Your task to perform on an android device: What's on my calendar tomorrow? Image 0: 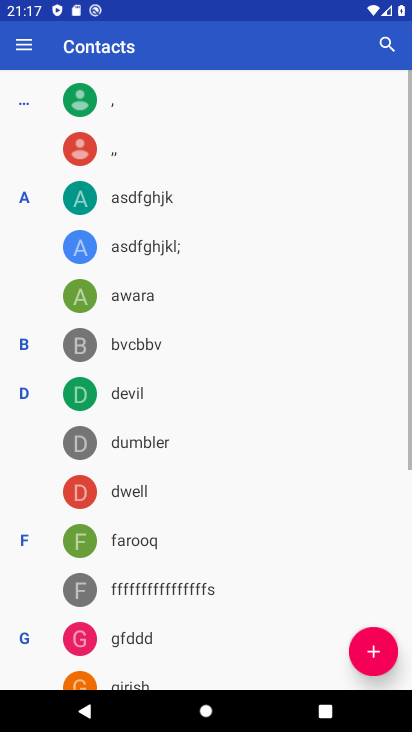
Step 0: press home button
Your task to perform on an android device: What's on my calendar tomorrow? Image 1: 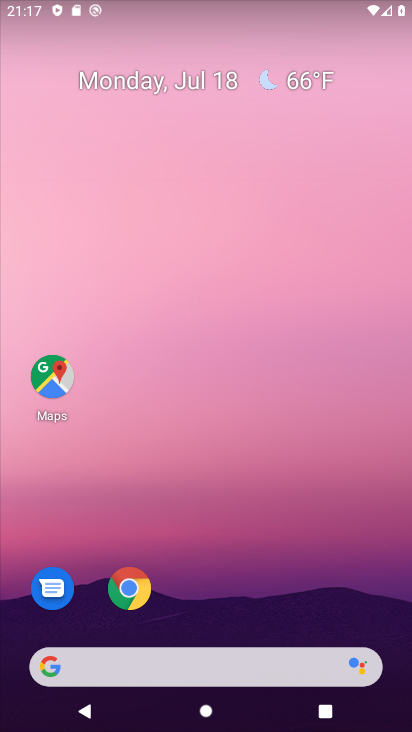
Step 1: drag from (150, 658) to (238, 99)
Your task to perform on an android device: What's on my calendar tomorrow? Image 2: 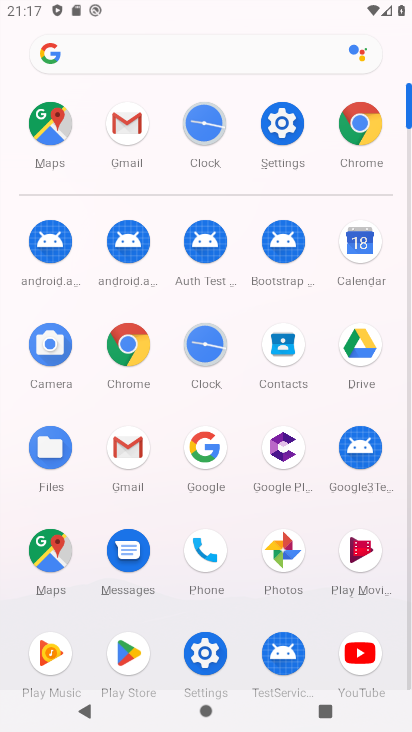
Step 2: click (355, 249)
Your task to perform on an android device: What's on my calendar tomorrow? Image 3: 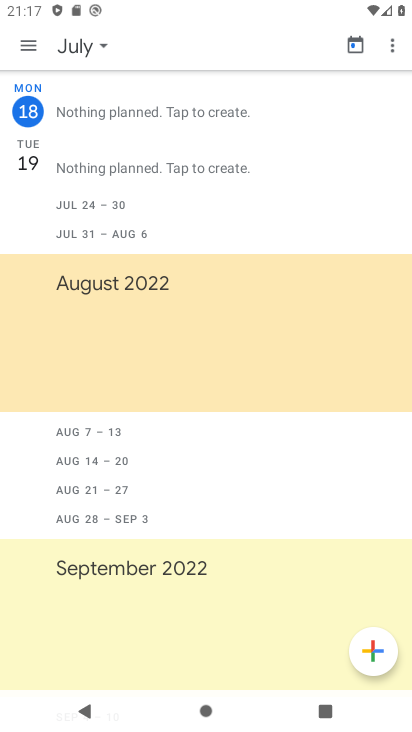
Step 3: click (76, 46)
Your task to perform on an android device: What's on my calendar tomorrow? Image 4: 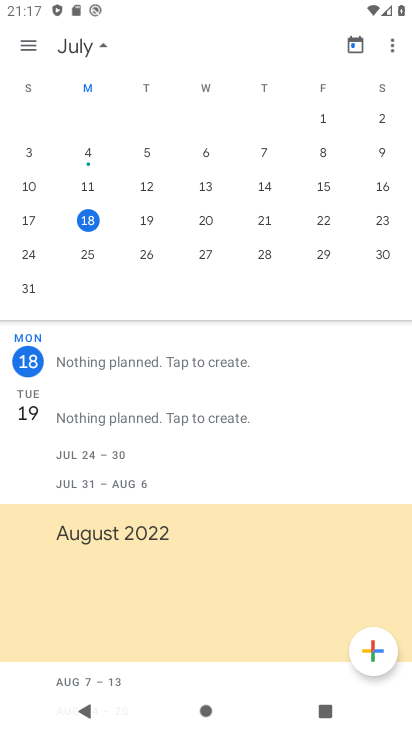
Step 4: click (146, 217)
Your task to perform on an android device: What's on my calendar tomorrow? Image 5: 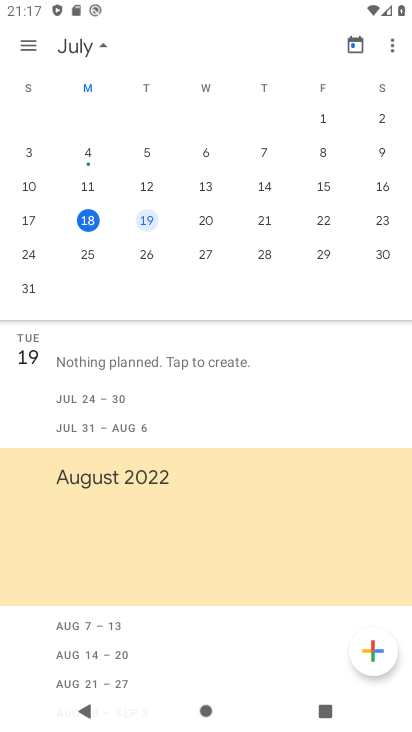
Step 5: click (28, 43)
Your task to perform on an android device: What's on my calendar tomorrow? Image 6: 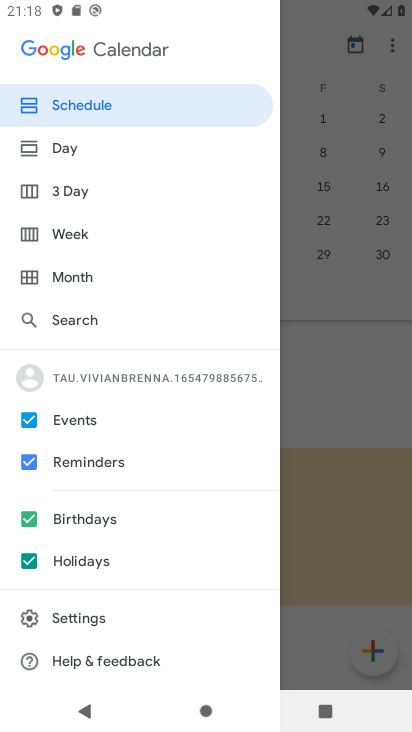
Step 6: click (68, 147)
Your task to perform on an android device: What's on my calendar tomorrow? Image 7: 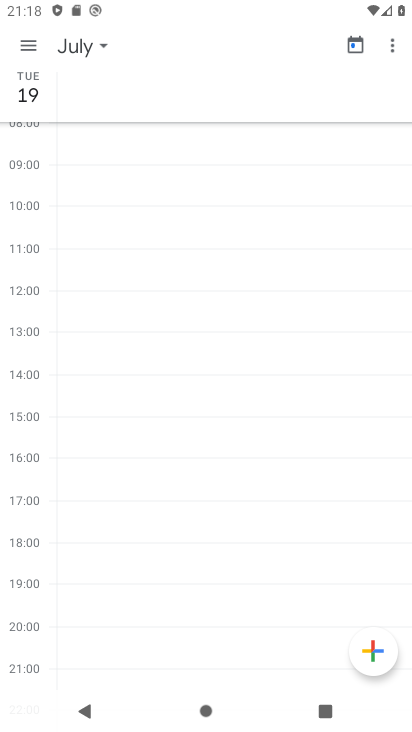
Step 7: click (35, 40)
Your task to perform on an android device: What's on my calendar tomorrow? Image 8: 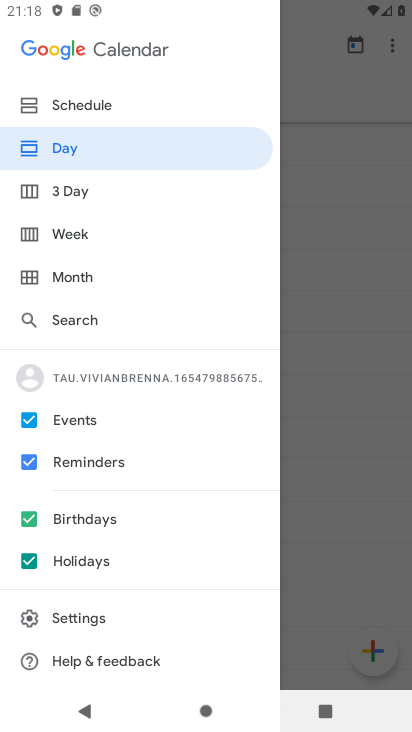
Step 8: click (95, 104)
Your task to perform on an android device: What's on my calendar tomorrow? Image 9: 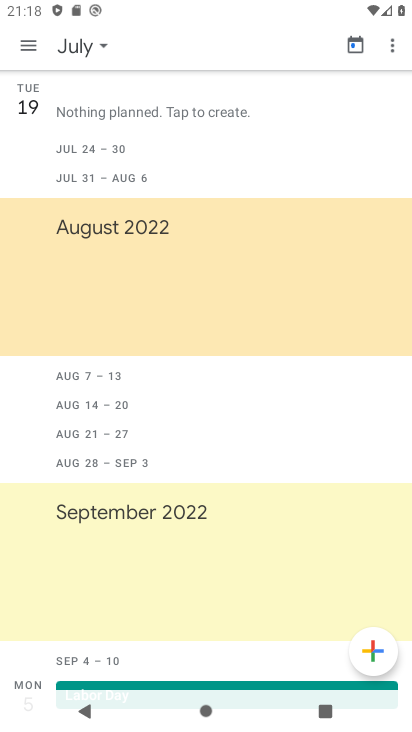
Step 9: task complete